Your task to perform on an android device: Clear all items from cart on target.com. Image 0: 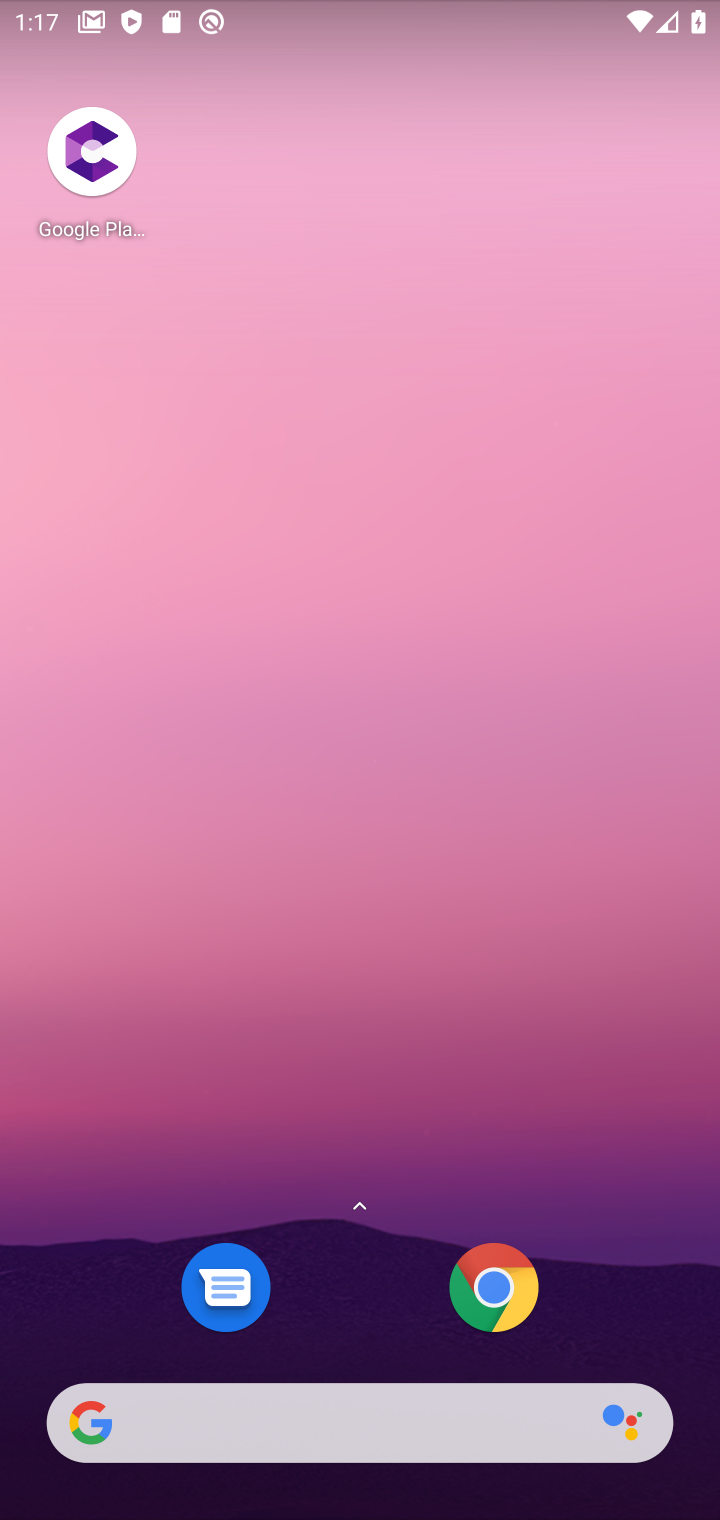
Step 0: drag from (355, 1300) to (262, 167)
Your task to perform on an android device: Clear all items from cart on target.com. Image 1: 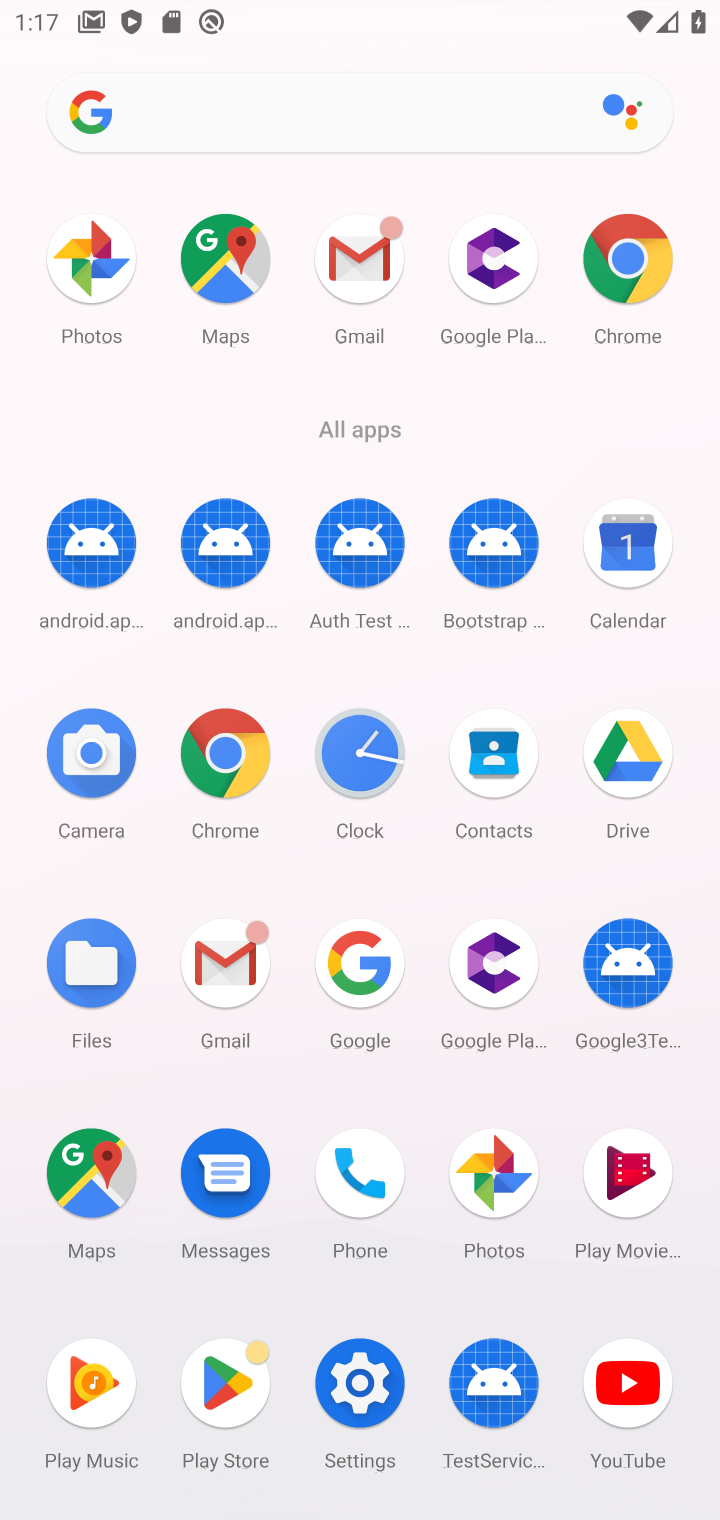
Step 1: click (224, 744)
Your task to perform on an android device: Clear all items from cart on target.com. Image 2: 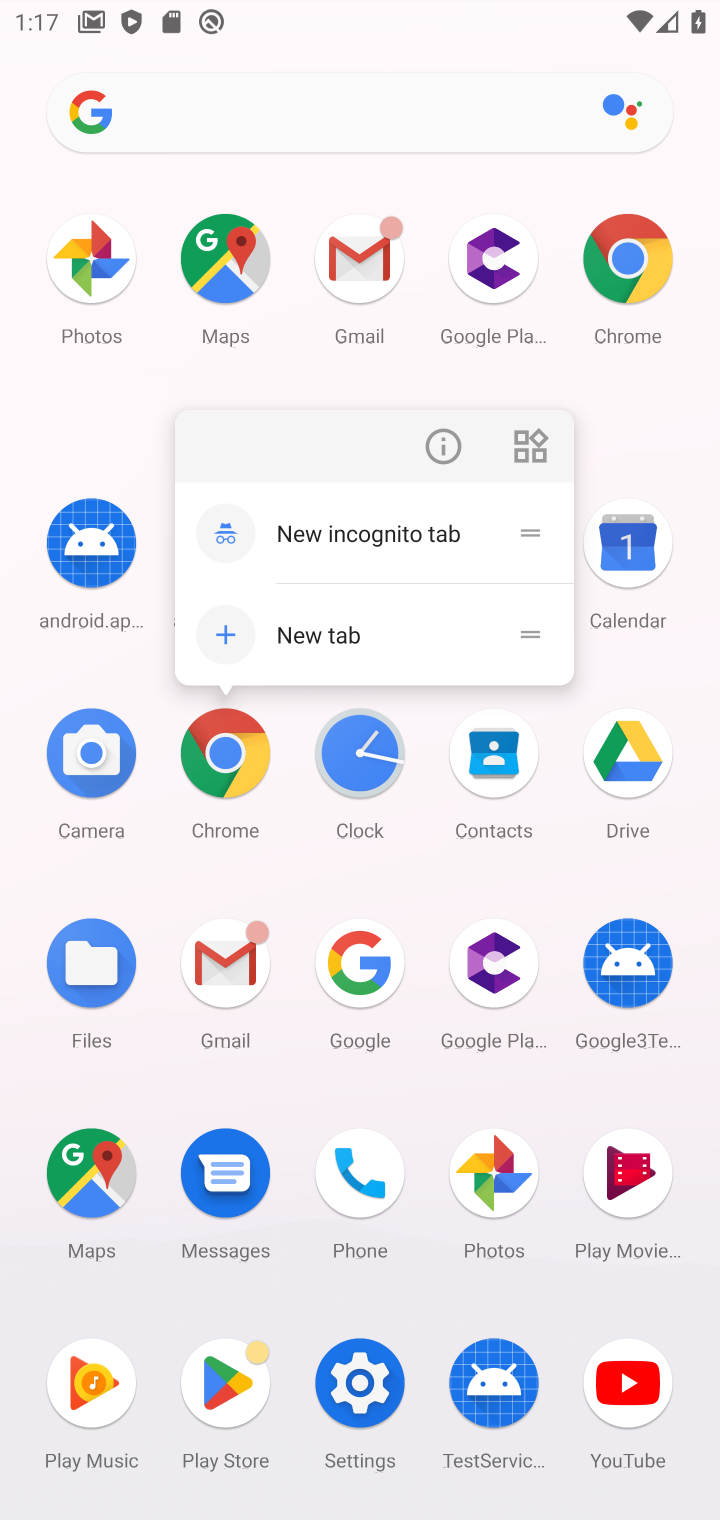
Step 2: click (210, 746)
Your task to perform on an android device: Clear all items from cart on target.com. Image 3: 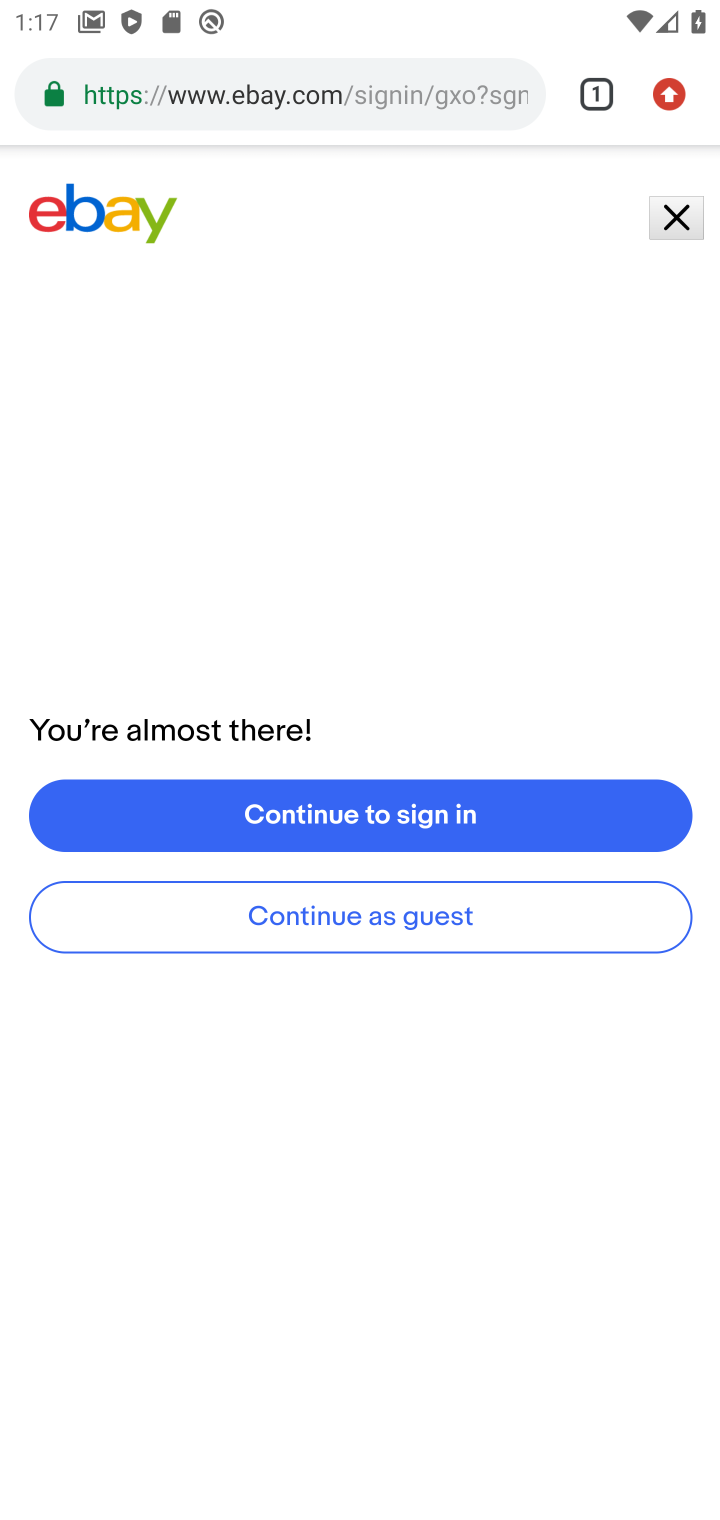
Step 3: click (406, 99)
Your task to perform on an android device: Clear all items from cart on target.com. Image 4: 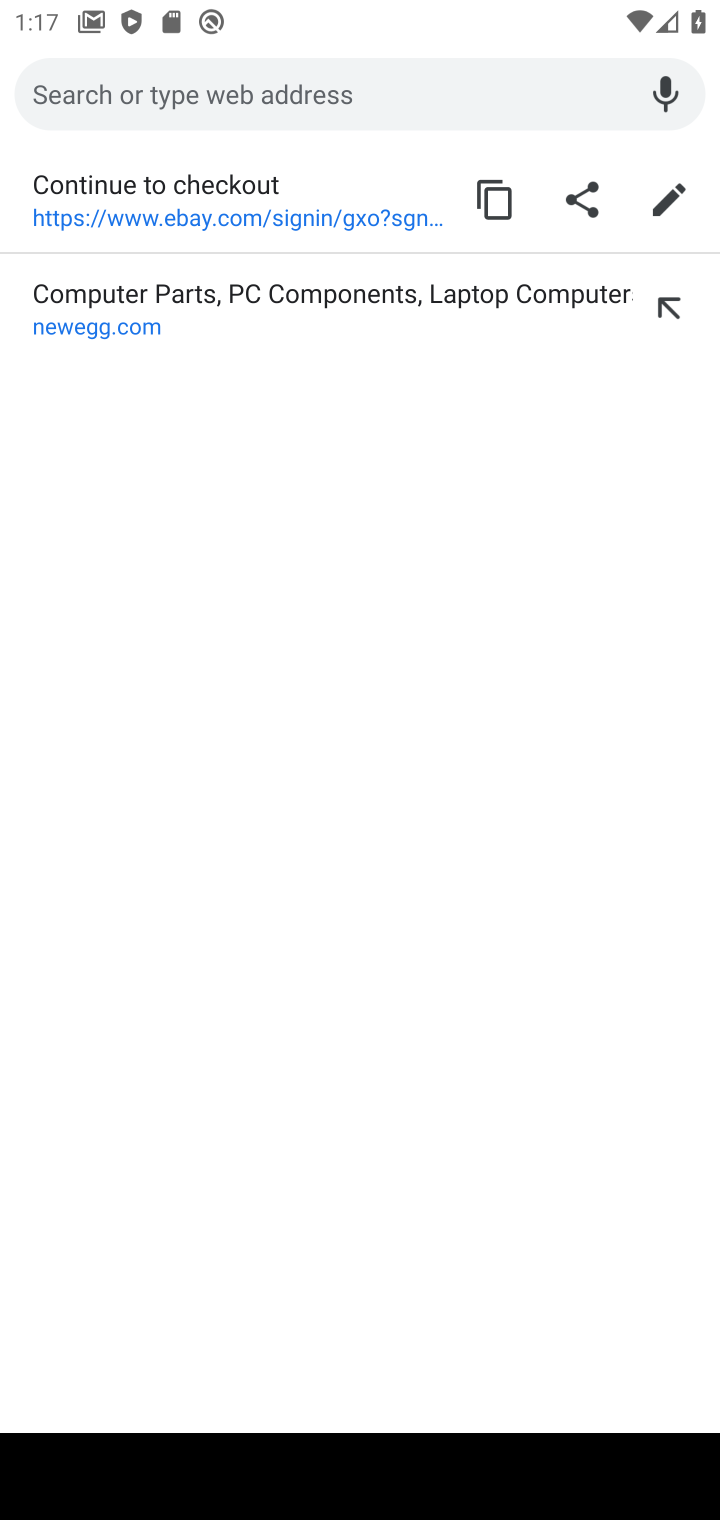
Step 4: type "target.com"
Your task to perform on an android device: Clear all items from cart on target.com. Image 5: 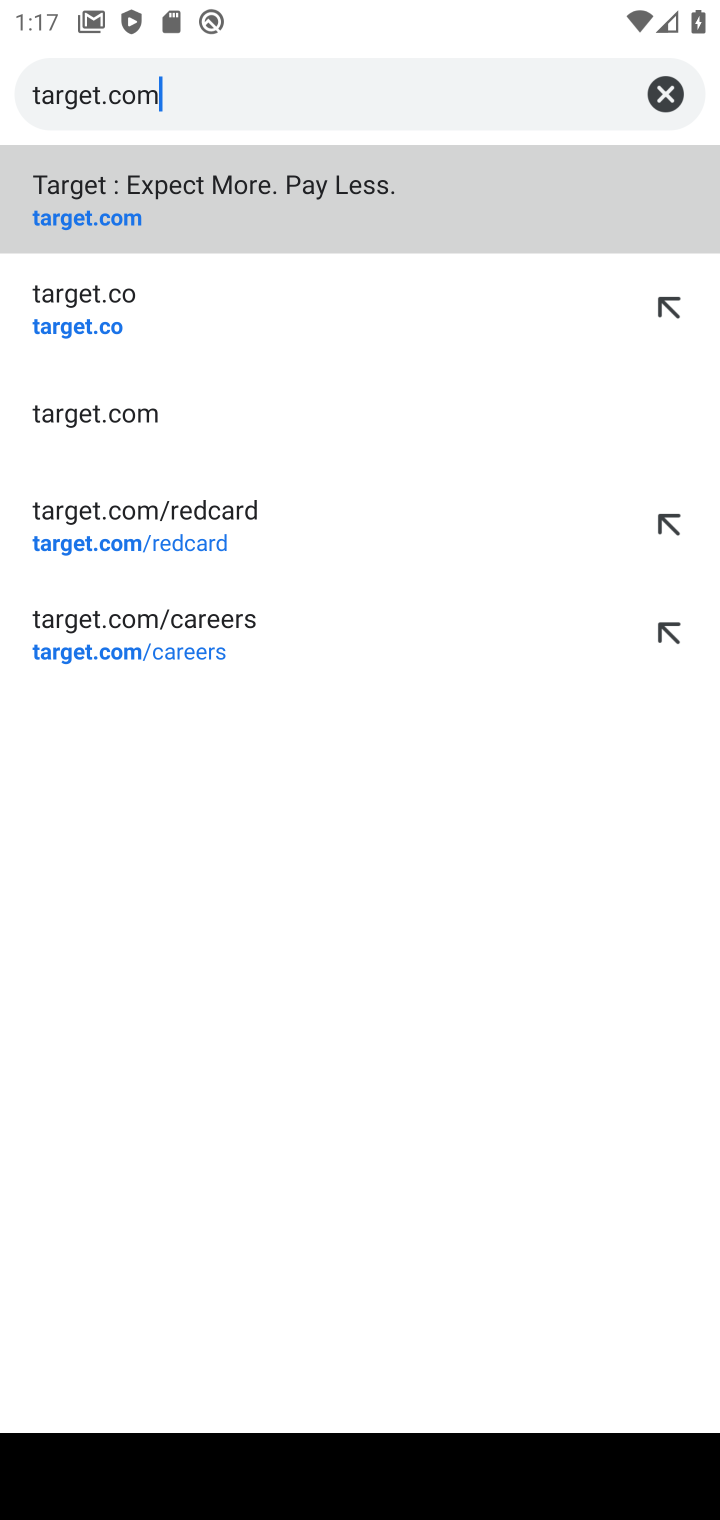
Step 5: press enter
Your task to perform on an android device: Clear all items from cart on target.com. Image 6: 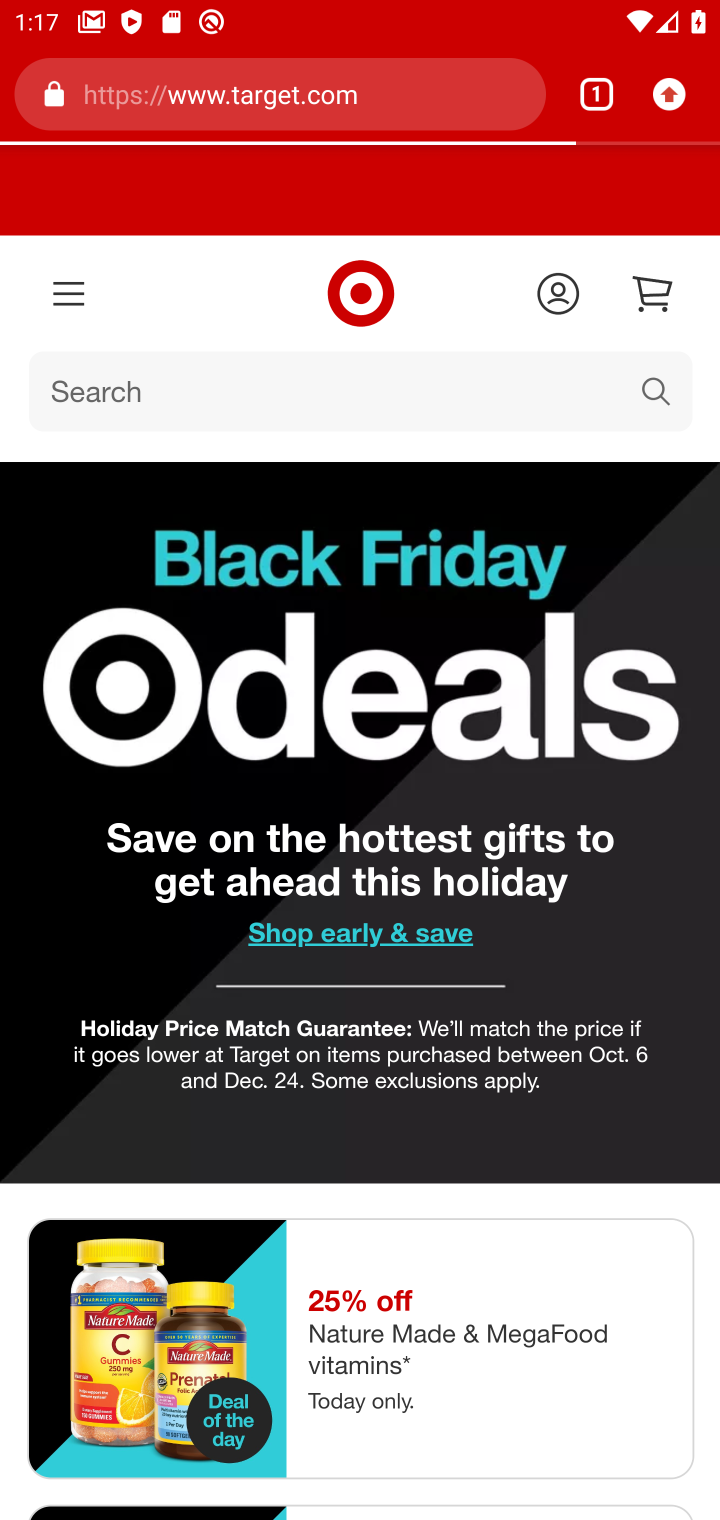
Step 6: click (651, 292)
Your task to perform on an android device: Clear all items from cart on target.com. Image 7: 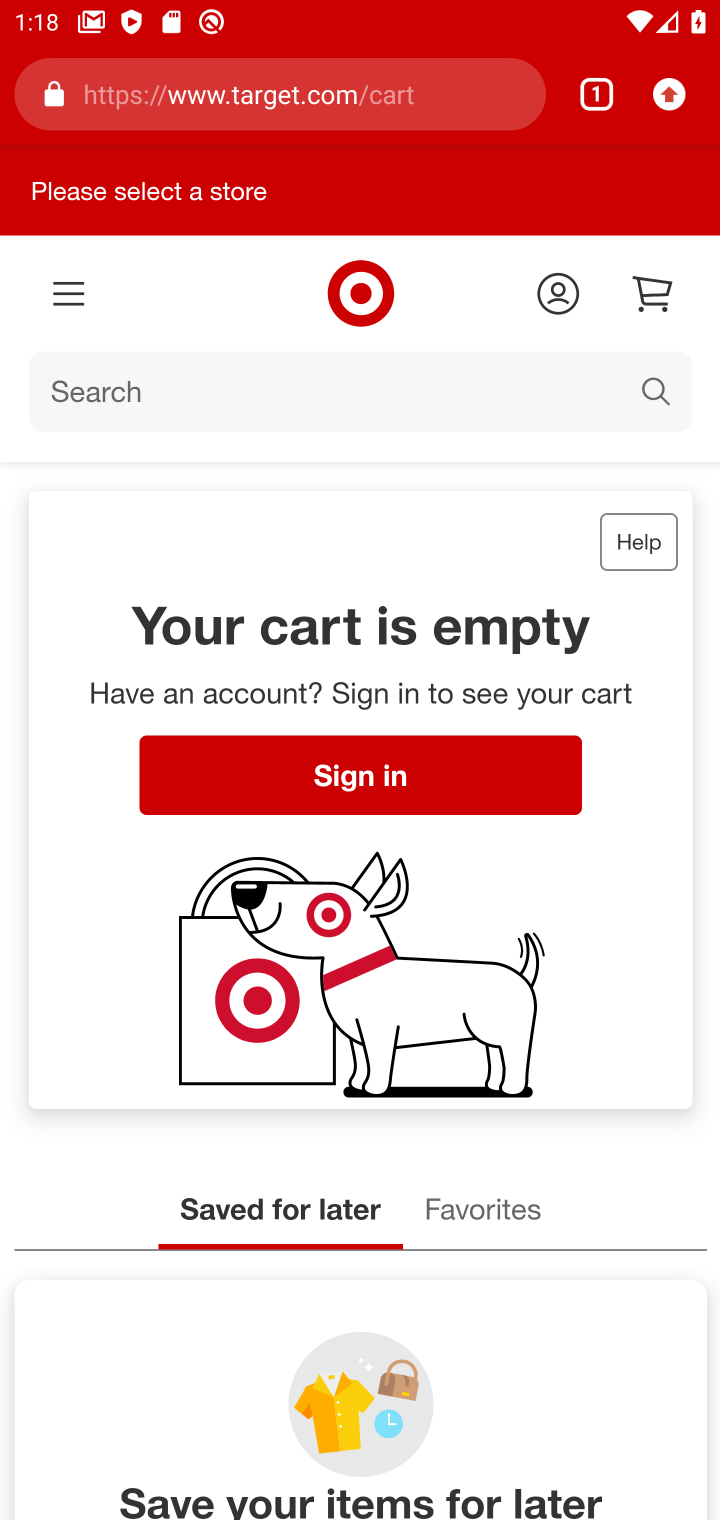
Step 7: task complete